Your task to perform on an android device: all mails in gmail Image 0: 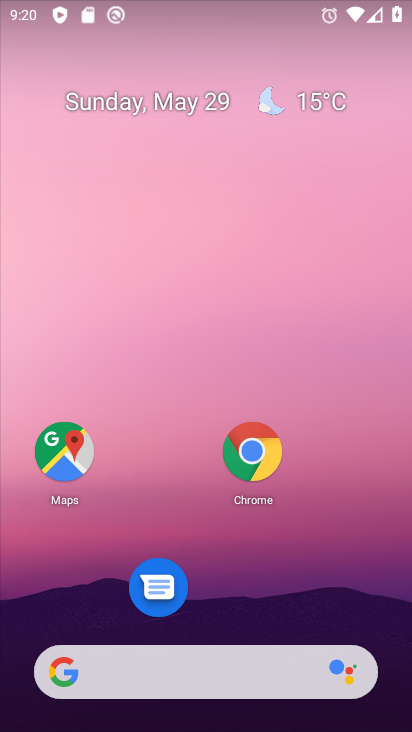
Step 0: drag from (227, 610) to (181, 37)
Your task to perform on an android device: all mails in gmail Image 1: 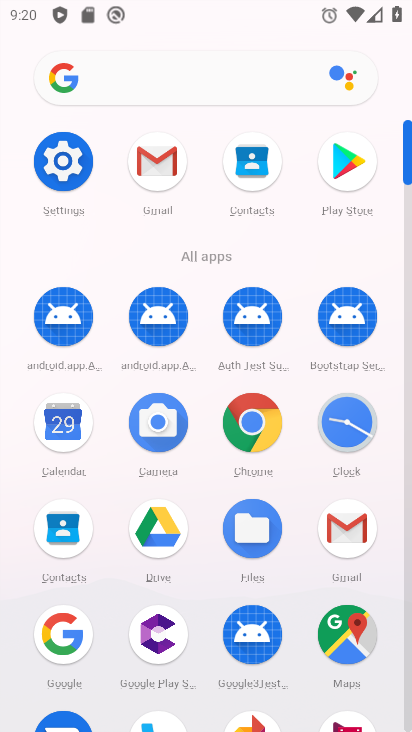
Step 1: click (177, 143)
Your task to perform on an android device: all mails in gmail Image 2: 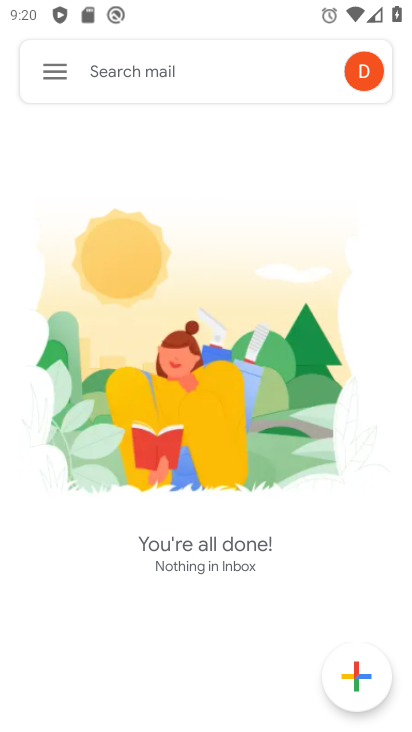
Step 2: click (39, 68)
Your task to perform on an android device: all mails in gmail Image 3: 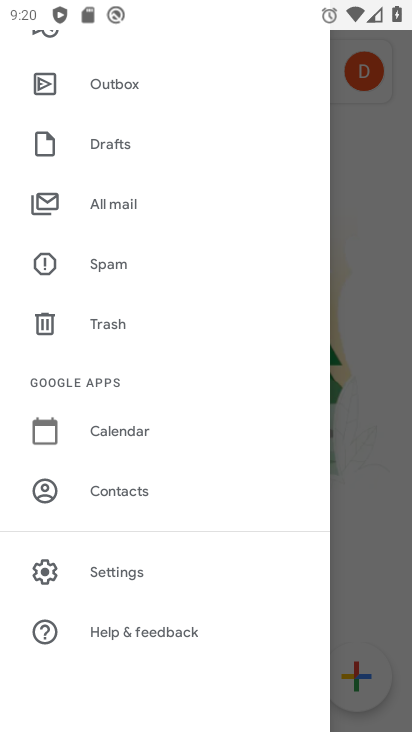
Step 3: click (113, 232)
Your task to perform on an android device: all mails in gmail Image 4: 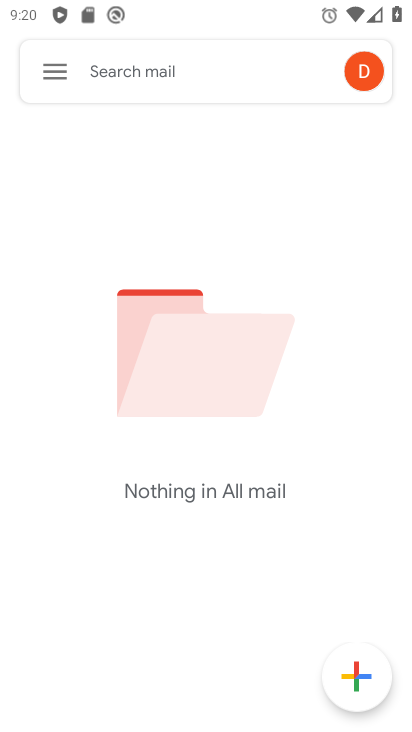
Step 4: task complete